Your task to perform on an android device: Search for sushi restaurants on Maps Image 0: 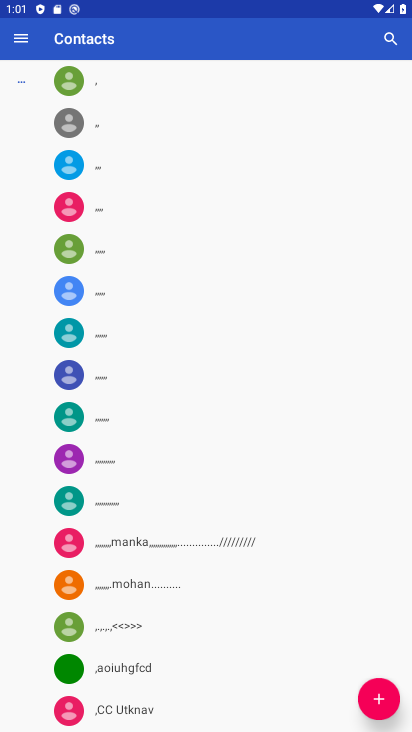
Step 0: press home button
Your task to perform on an android device: Search for sushi restaurants on Maps Image 1: 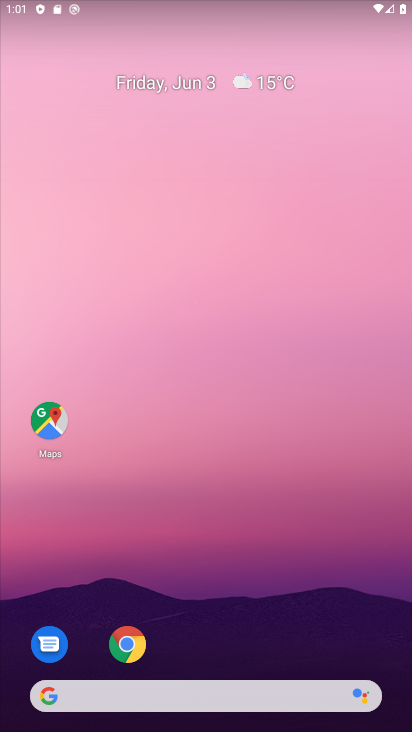
Step 1: click (54, 446)
Your task to perform on an android device: Search for sushi restaurants on Maps Image 2: 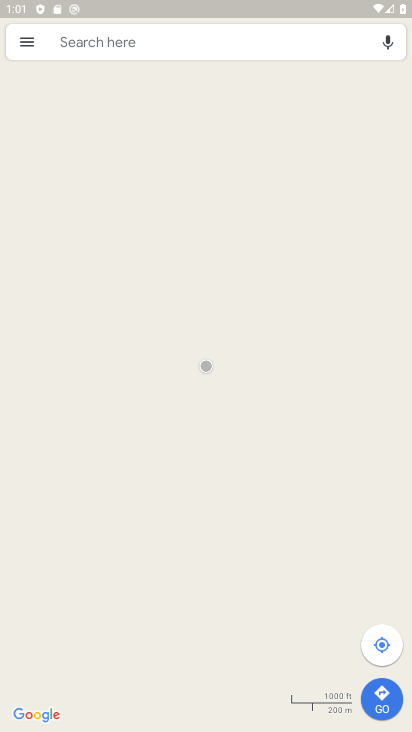
Step 2: click (185, 51)
Your task to perform on an android device: Search for sushi restaurants on Maps Image 3: 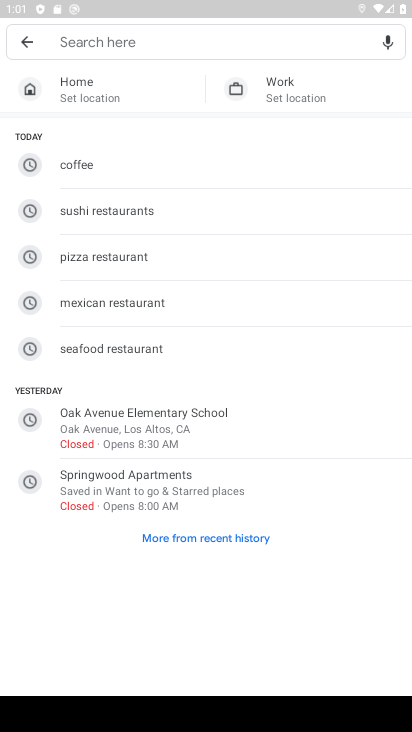
Step 3: type "Sushi restaurants"
Your task to perform on an android device: Search for sushi restaurants on Maps Image 4: 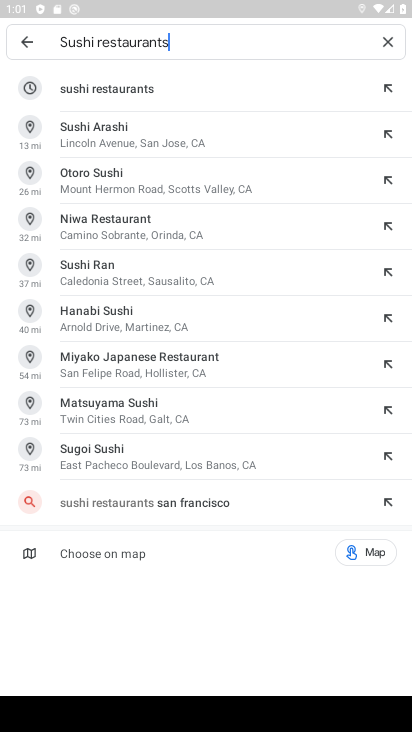
Step 4: click (127, 95)
Your task to perform on an android device: Search for sushi restaurants on Maps Image 5: 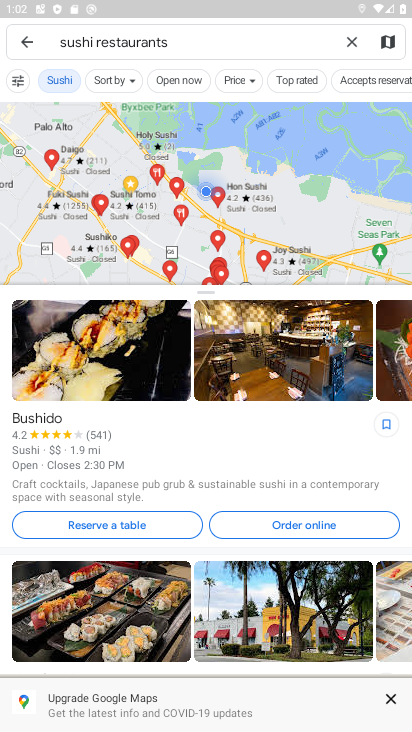
Step 5: task complete